Your task to perform on an android device: change alarm snooze length Image 0: 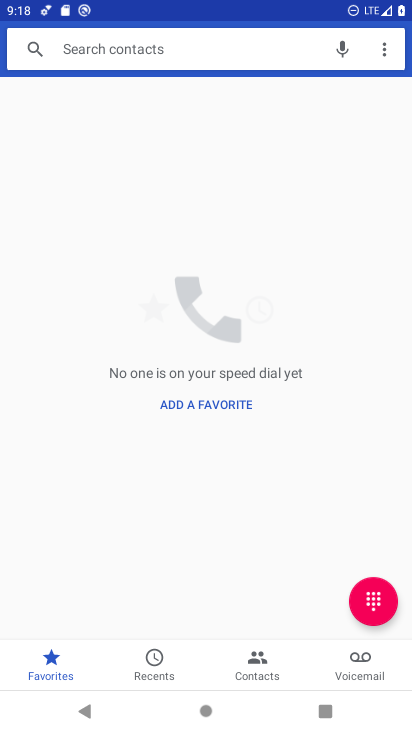
Step 0: press home button
Your task to perform on an android device: change alarm snooze length Image 1: 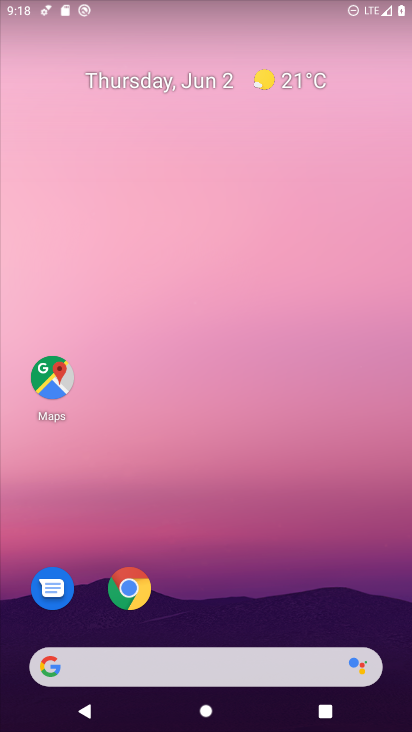
Step 1: drag from (205, 567) to (245, 70)
Your task to perform on an android device: change alarm snooze length Image 2: 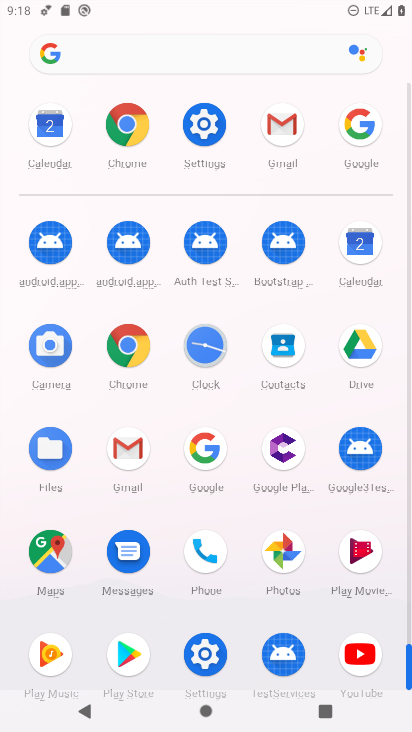
Step 2: click (198, 362)
Your task to perform on an android device: change alarm snooze length Image 3: 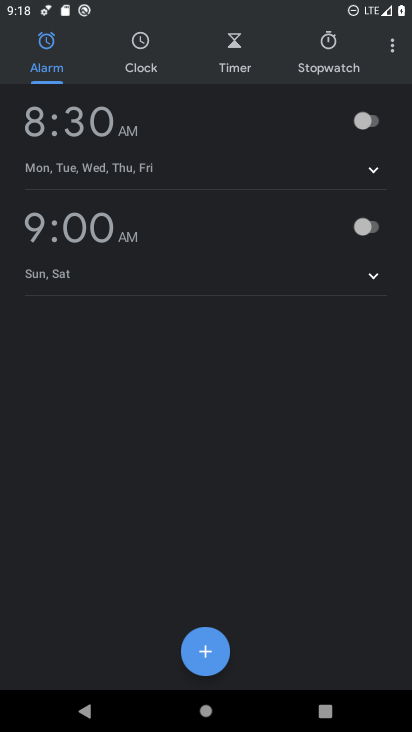
Step 3: click (394, 59)
Your task to perform on an android device: change alarm snooze length Image 4: 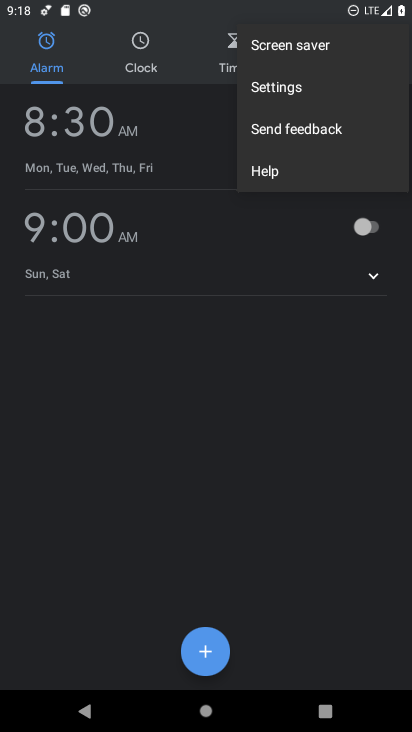
Step 4: click (295, 86)
Your task to perform on an android device: change alarm snooze length Image 5: 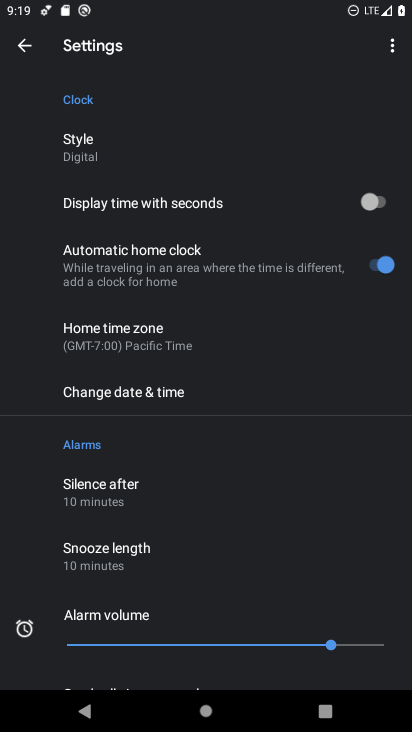
Step 5: click (162, 551)
Your task to perform on an android device: change alarm snooze length Image 6: 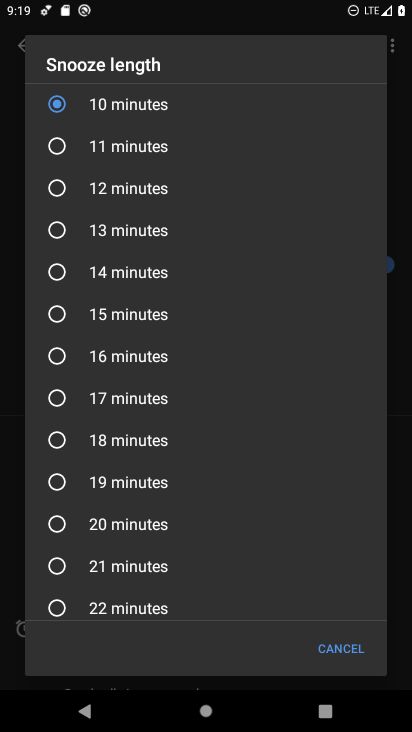
Step 6: click (120, 194)
Your task to perform on an android device: change alarm snooze length Image 7: 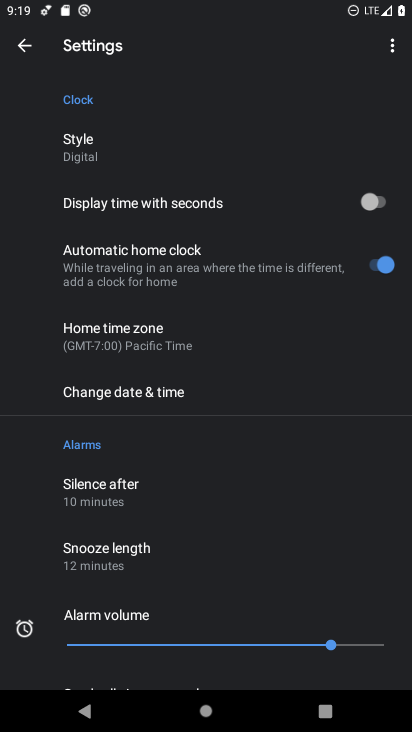
Step 7: task complete